Your task to perform on an android device: turn off smart reply in the gmail app Image 0: 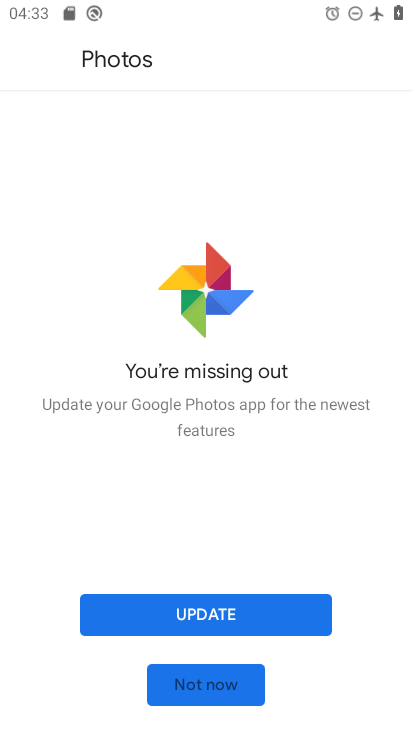
Step 0: press home button
Your task to perform on an android device: turn off smart reply in the gmail app Image 1: 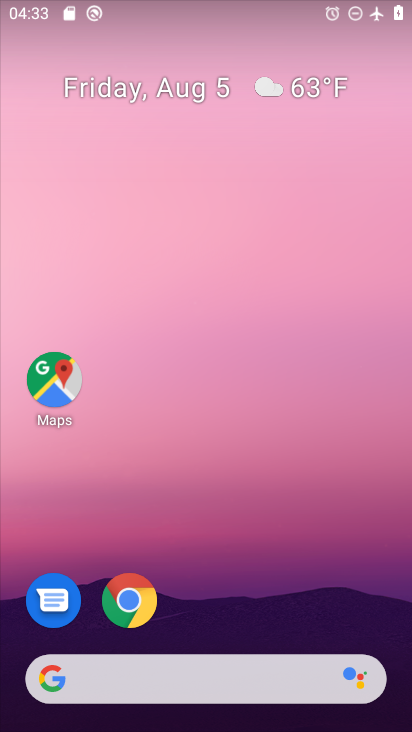
Step 1: drag from (198, 662) to (230, 217)
Your task to perform on an android device: turn off smart reply in the gmail app Image 2: 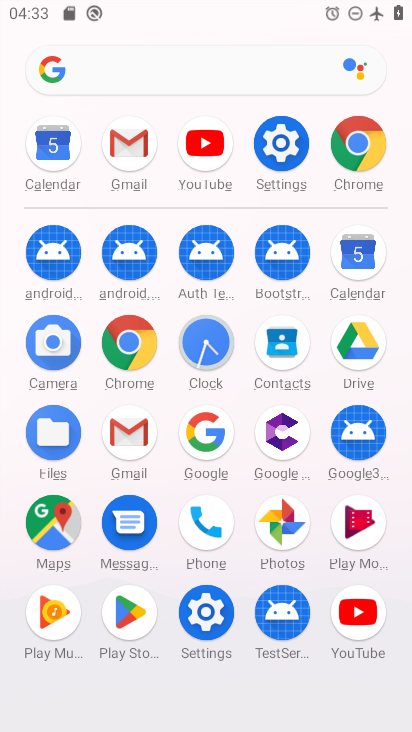
Step 2: click (128, 428)
Your task to perform on an android device: turn off smart reply in the gmail app Image 3: 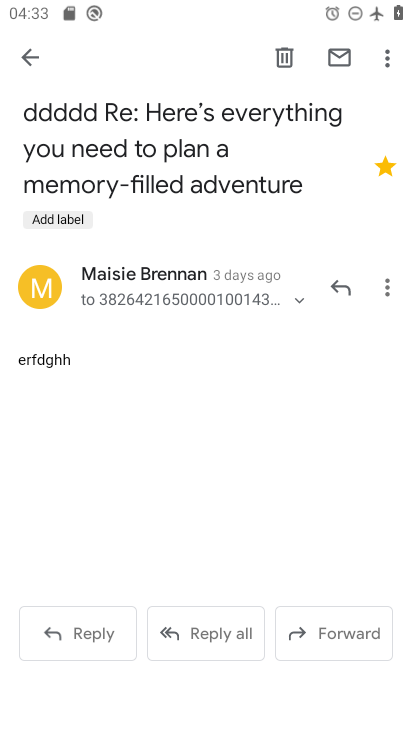
Step 3: press back button
Your task to perform on an android device: turn off smart reply in the gmail app Image 4: 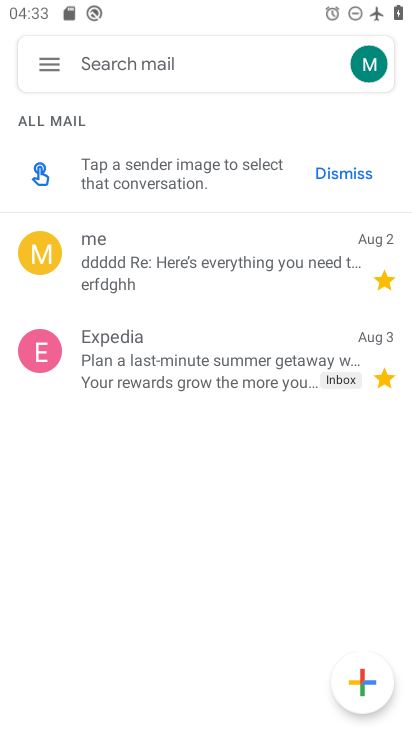
Step 4: click (47, 62)
Your task to perform on an android device: turn off smart reply in the gmail app Image 5: 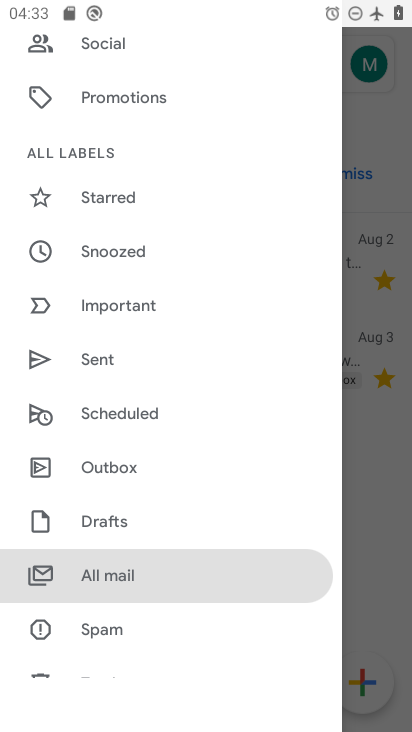
Step 5: drag from (100, 498) to (232, 102)
Your task to perform on an android device: turn off smart reply in the gmail app Image 6: 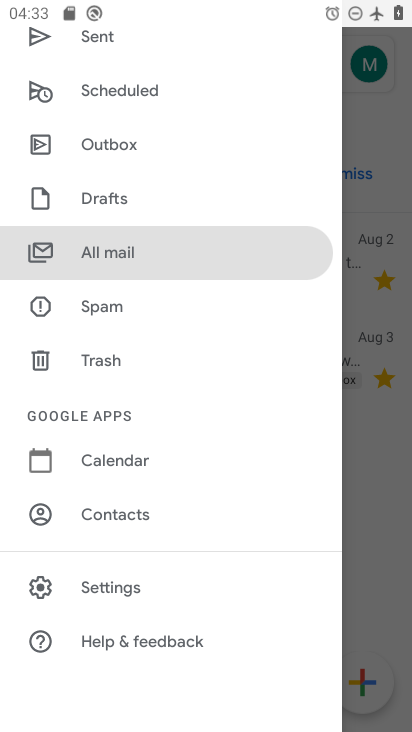
Step 6: click (124, 586)
Your task to perform on an android device: turn off smart reply in the gmail app Image 7: 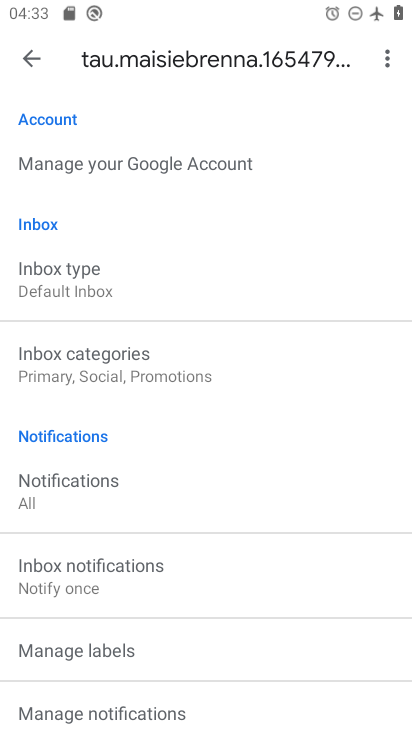
Step 7: drag from (93, 489) to (112, 225)
Your task to perform on an android device: turn off smart reply in the gmail app Image 8: 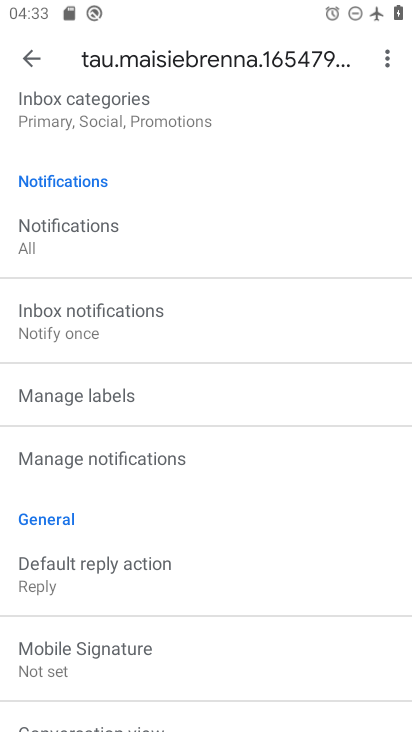
Step 8: drag from (93, 479) to (138, 226)
Your task to perform on an android device: turn off smart reply in the gmail app Image 9: 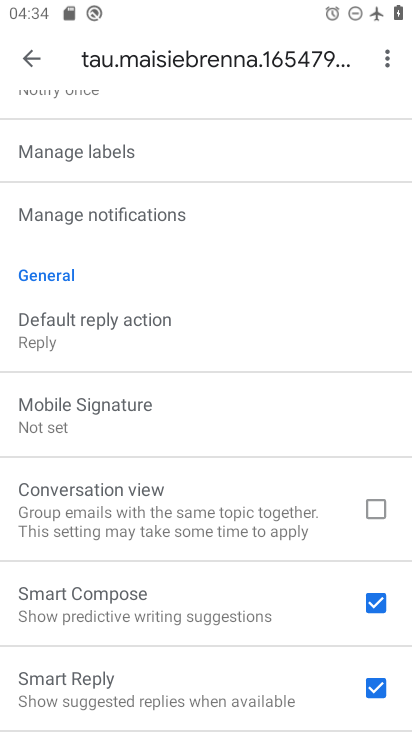
Step 9: drag from (126, 567) to (185, 416)
Your task to perform on an android device: turn off smart reply in the gmail app Image 10: 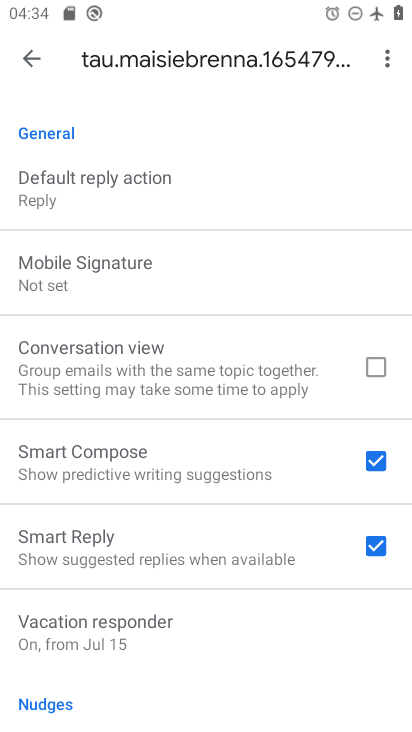
Step 10: click (374, 548)
Your task to perform on an android device: turn off smart reply in the gmail app Image 11: 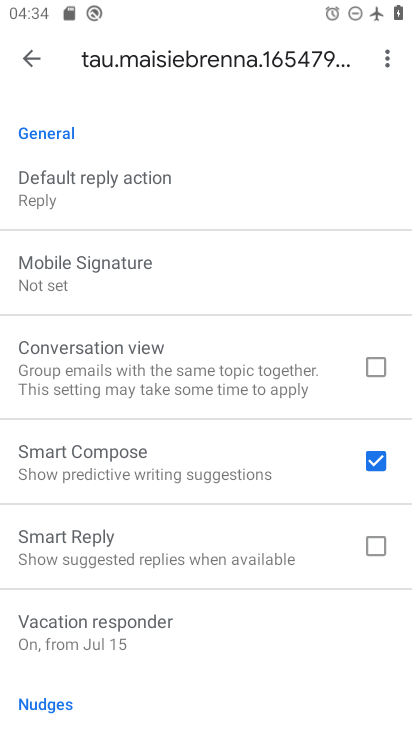
Step 11: task complete